Your task to perform on an android device: search for starred emails in the gmail app Image 0: 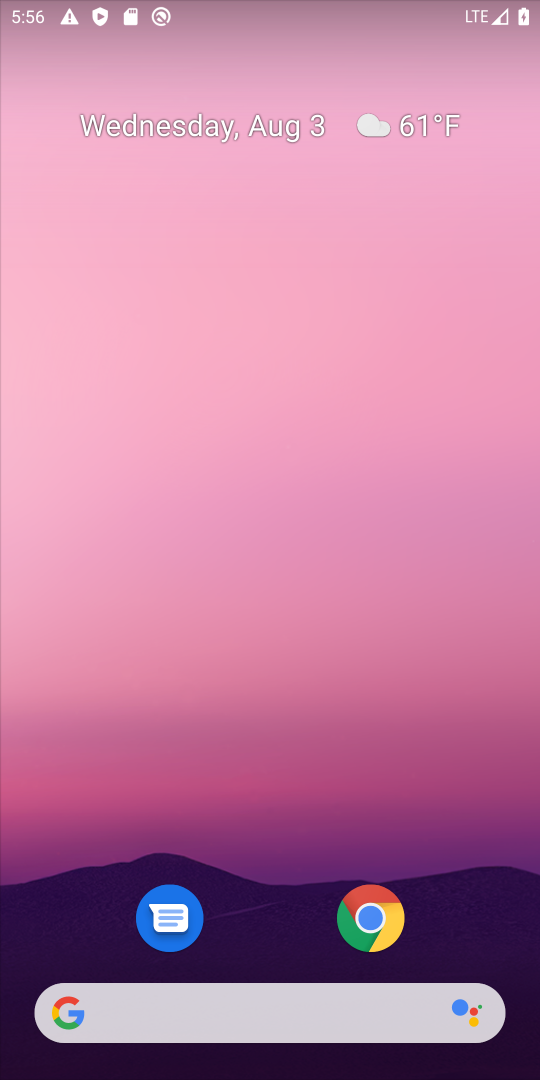
Step 0: drag from (280, 993) to (284, 336)
Your task to perform on an android device: search for starred emails in the gmail app Image 1: 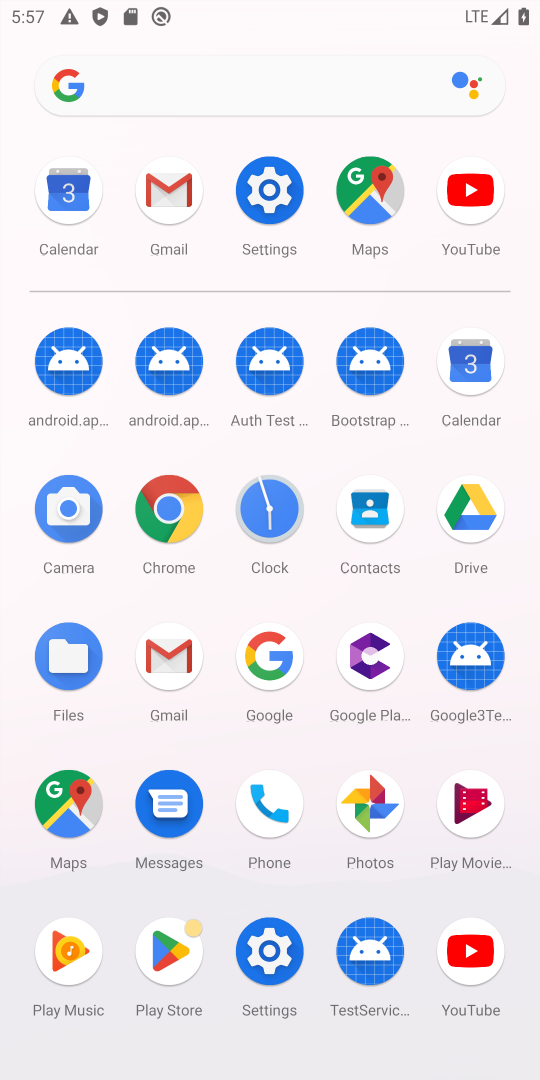
Step 1: click (172, 678)
Your task to perform on an android device: search for starred emails in the gmail app Image 2: 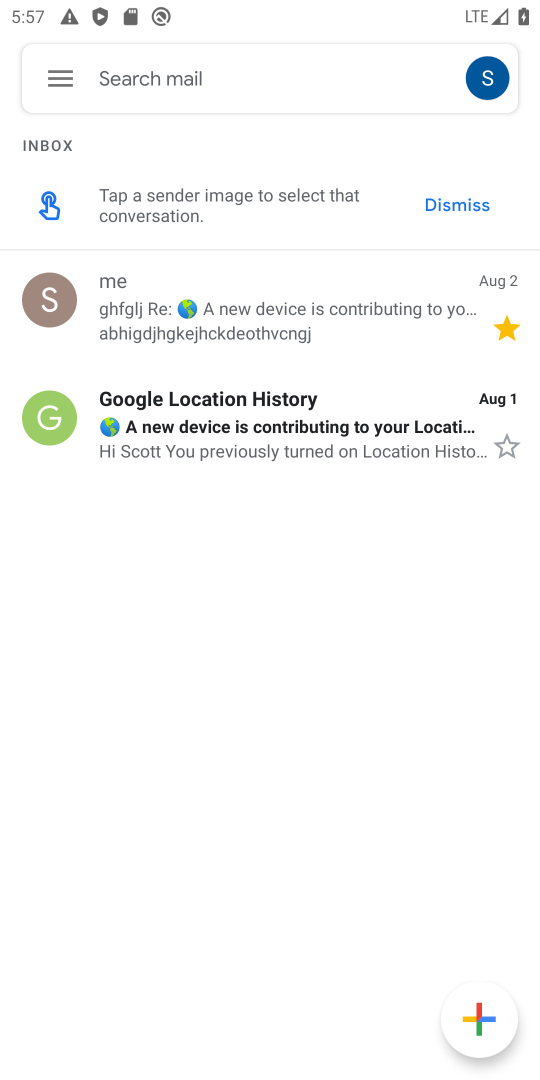
Step 2: click (43, 67)
Your task to perform on an android device: search for starred emails in the gmail app Image 3: 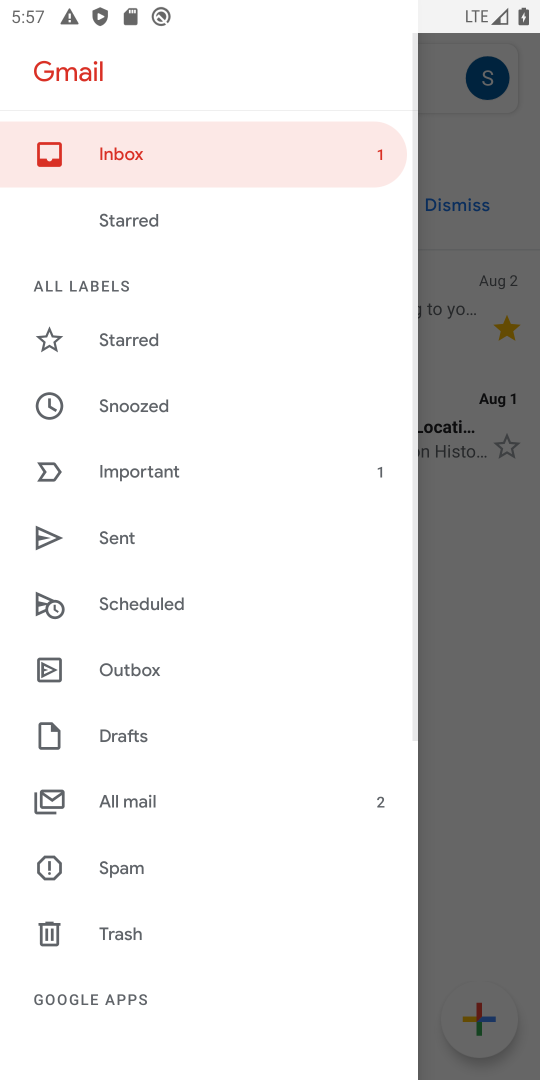
Step 3: click (134, 236)
Your task to perform on an android device: search for starred emails in the gmail app Image 4: 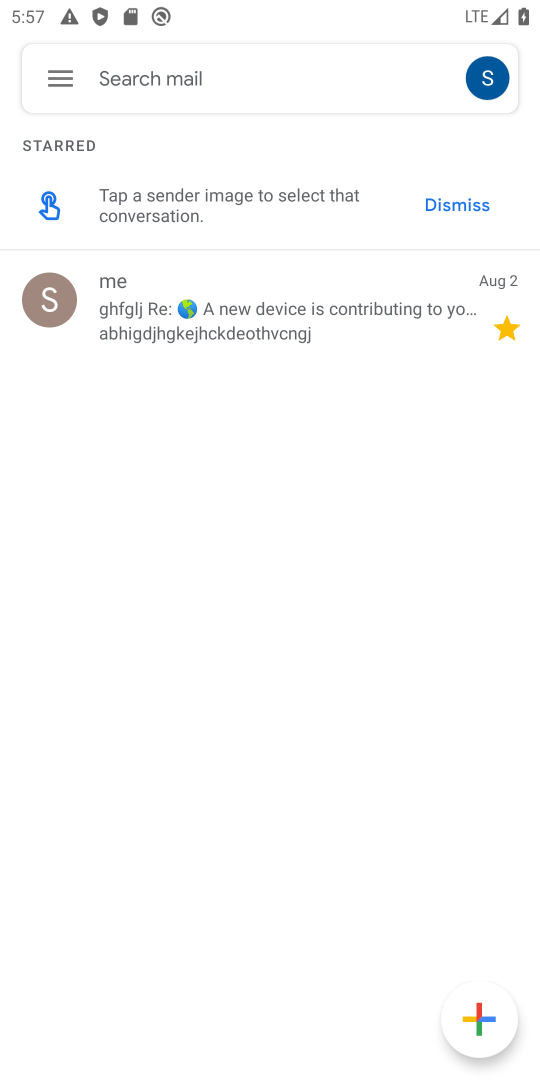
Step 4: task complete